Your task to perform on an android device: change the upload size in google photos Image 0: 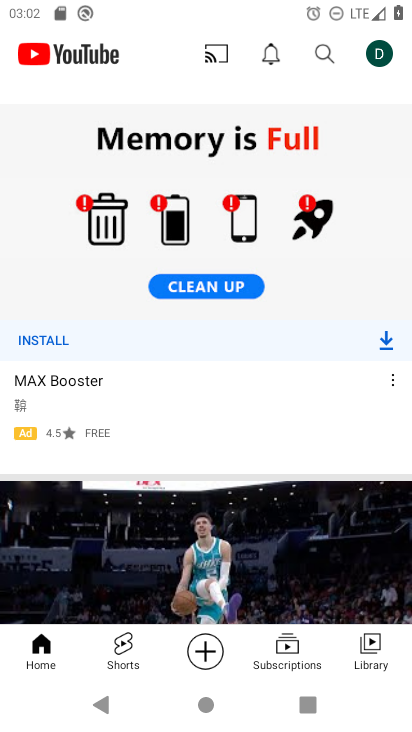
Step 0: press home button
Your task to perform on an android device: change the upload size in google photos Image 1: 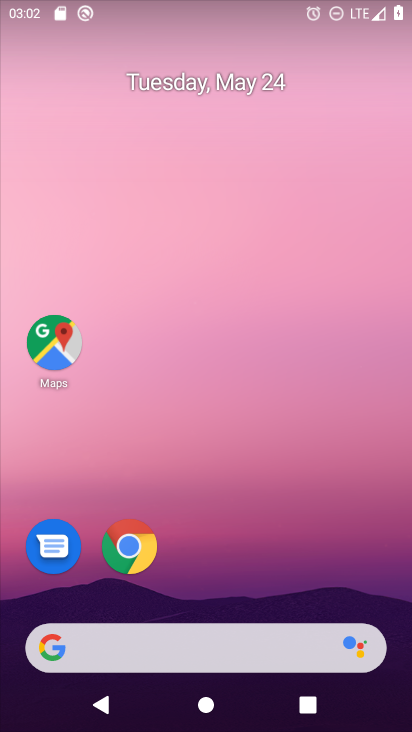
Step 1: drag from (272, 677) to (388, 1)
Your task to perform on an android device: change the upload size in google photos Image 2: 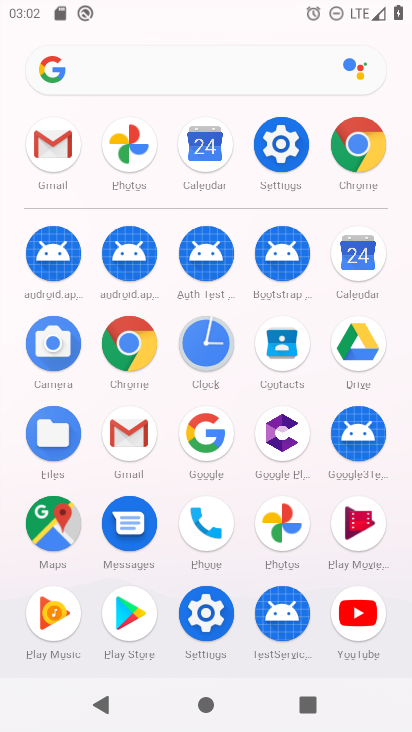
Step 2: click (291, 527)
Your task to perform on an android device: change the upload size in google photos Image 3: 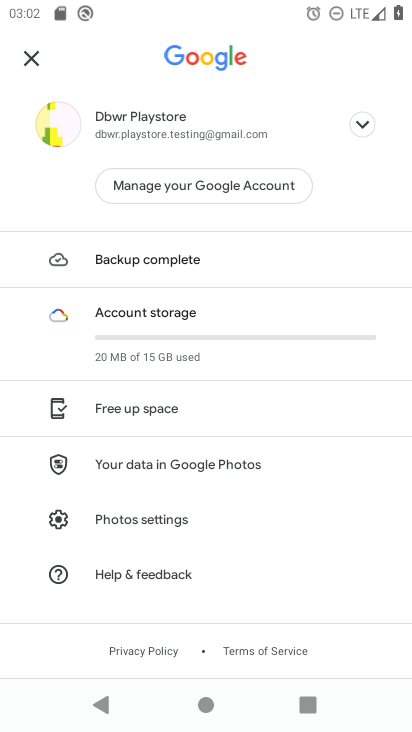
Step 3: click (150, 516)
Your task to perform on an android device: change the upload size in google photos Image 4: 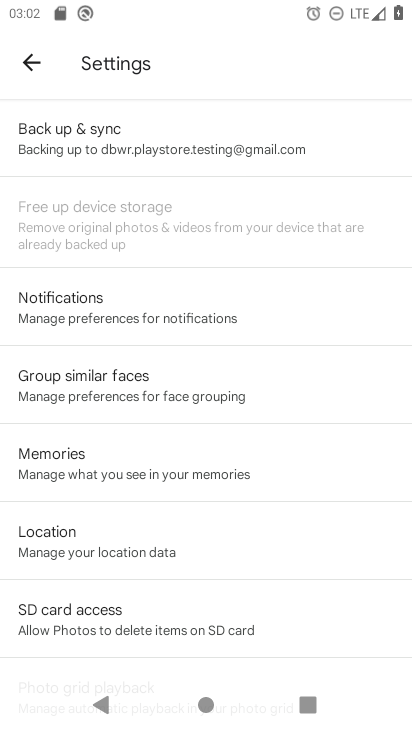
Step 4: click (119, 130)
Your task to perform on an android device: change the upload size in google photos Image 5: 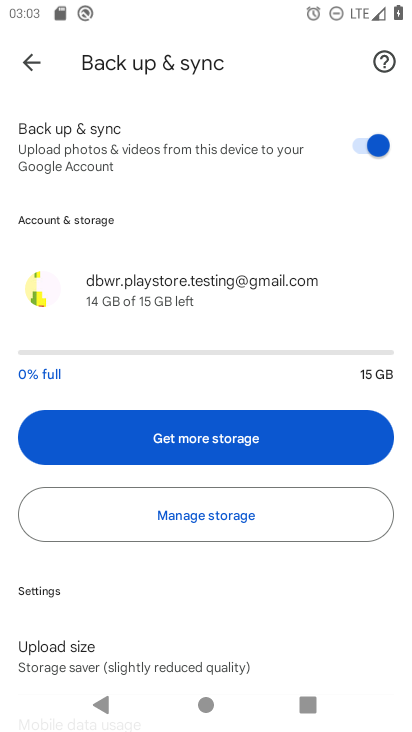
Step 5: task complete